Your task to perform on an android device: turn on priority inbox in the gmail app Image 0: 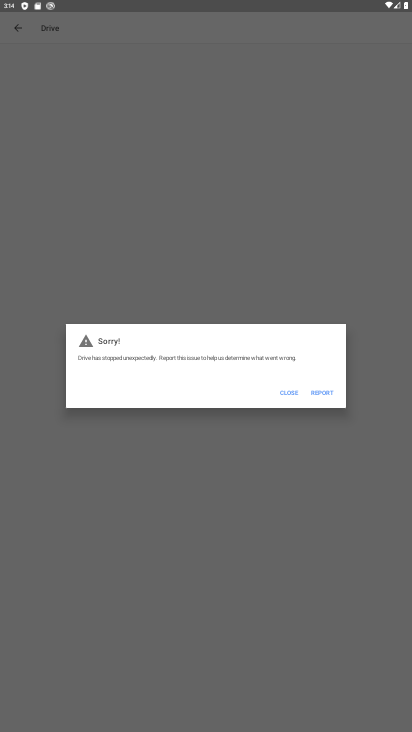
Step 0: press home button
Your task to perform on an android device: turn on priority inbox in the gmail app Image 1: 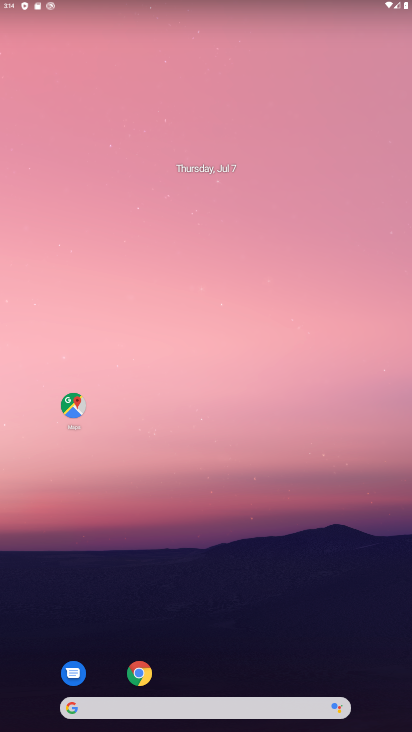
Step 1: drag from (293, 584) to (292, 51)
Your task to perform on an android device: turn on priority inbox in the gmail app Image 2: 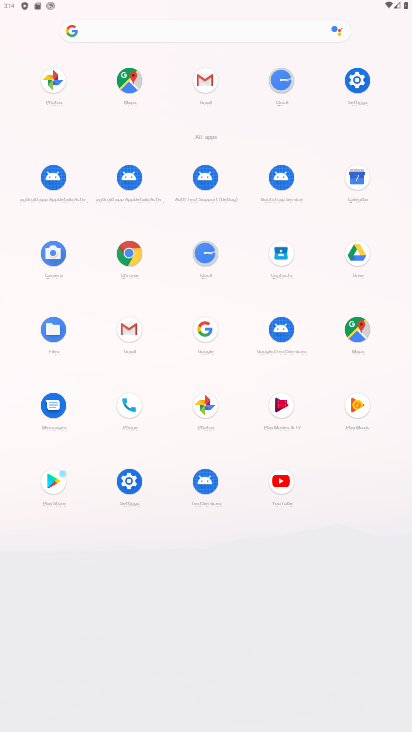
Step 2: click (191, 80)
Your task to perform on an android device: turn on priority inbox in the gmail app Image 3: 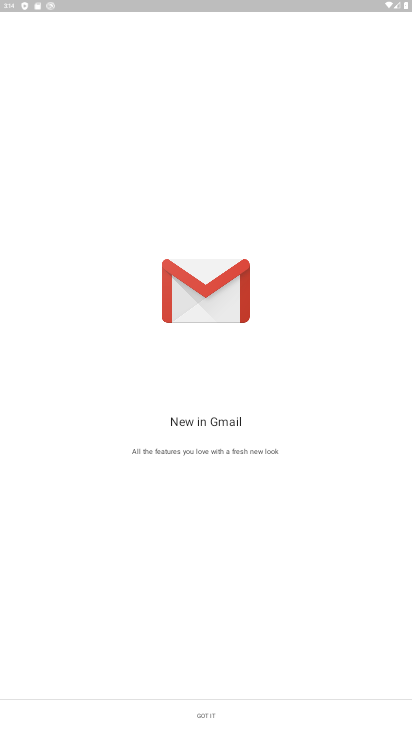
Step 3: click (205, 719)
Your task to perform on an android device: turn on priority inbox in the gmail app Image 4: 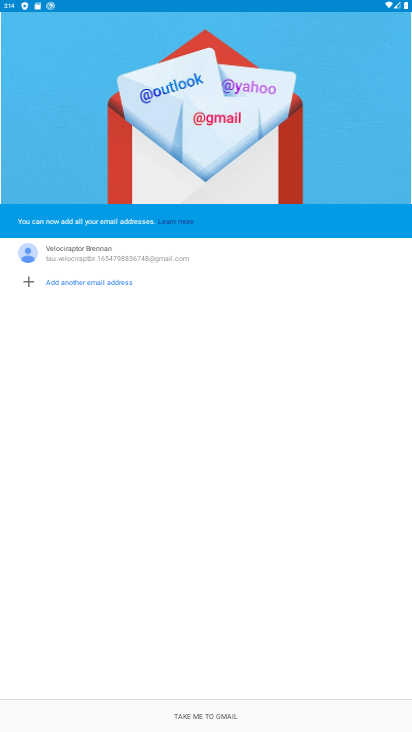
Step 4: click (111, 256)
Your task to perform on an android device: turn on priority inbox in the gmail app Image 5: 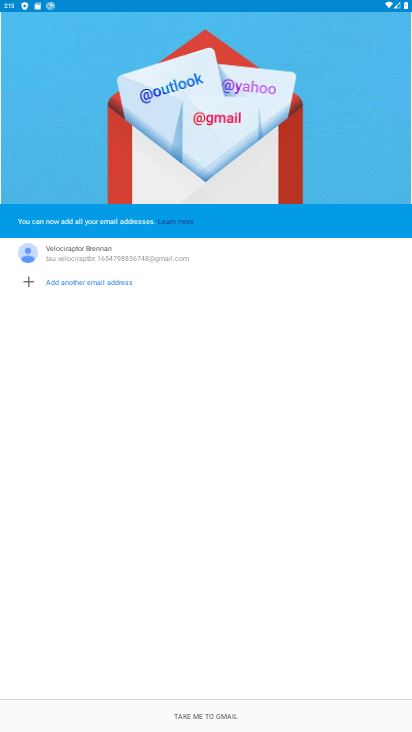
Step 5: click (218, 718)
Your task to perform on an android device: turn on priority inbox in the gmail app Image 6: 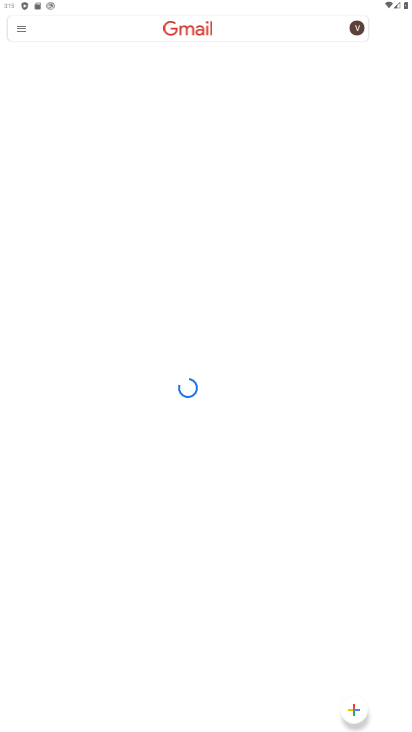
Step 6: drag from (51, 107) to (121, 2)
Your task to perform on an android device: turn on priority inbox in the gmail app Image 7: 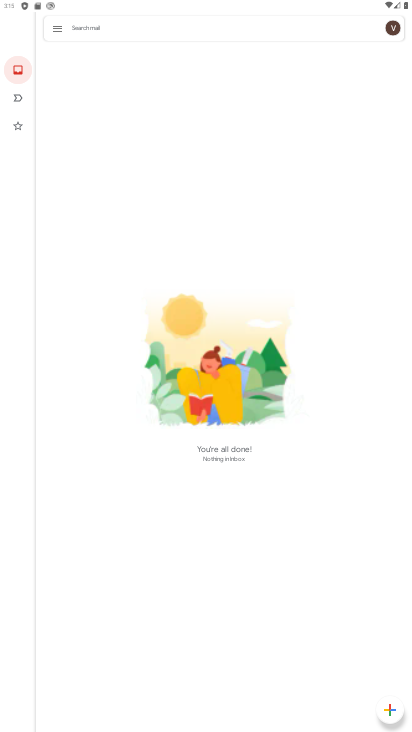
Step 7: click (52, 27)
Your task to perform on an android device: turn on priority inbox in the gmail app Image 8: 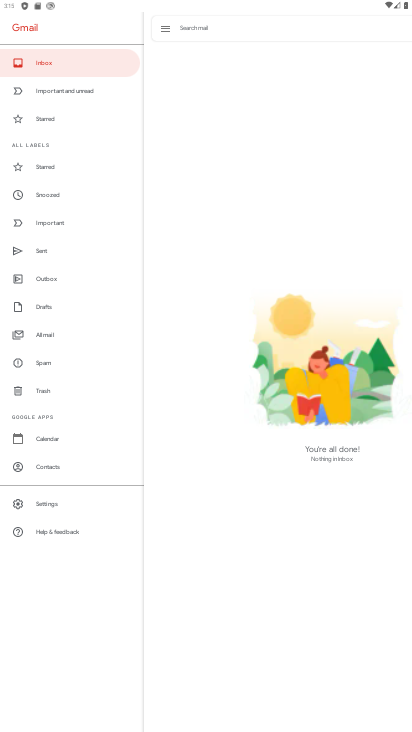
Step 8: click (47, 502)
Your task to perform on an android device: turn on priority inbox in the gmail app Image 9: 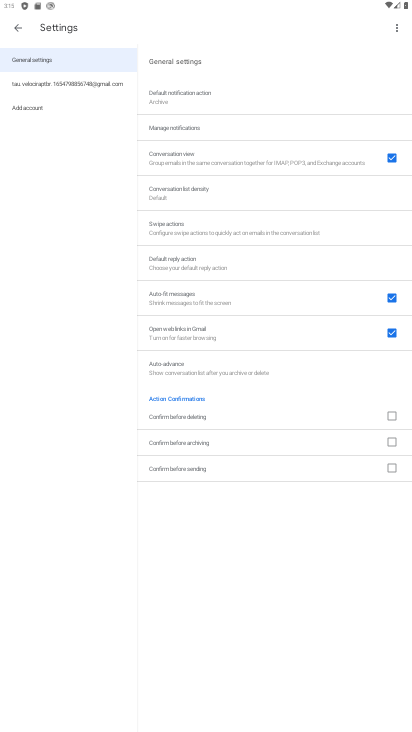
Step 9: click (65, 84)
Your task to perform on an android device: turn on priority inbox in the gmail app Image 10: 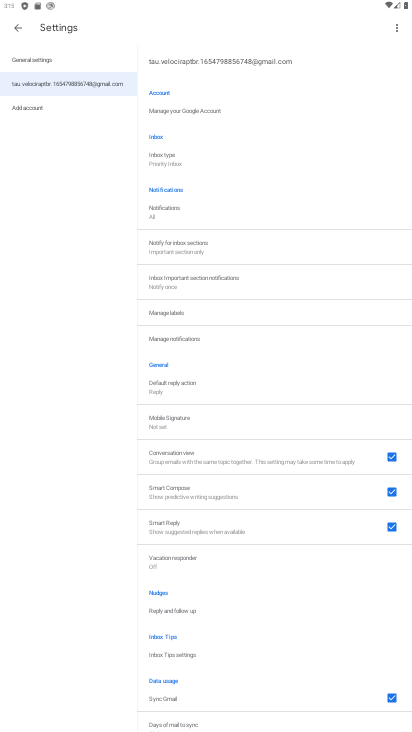
Step 10: click (151, 158)
Your task to perform on an android device: turn on priority inbox in the gmail app Image 11: 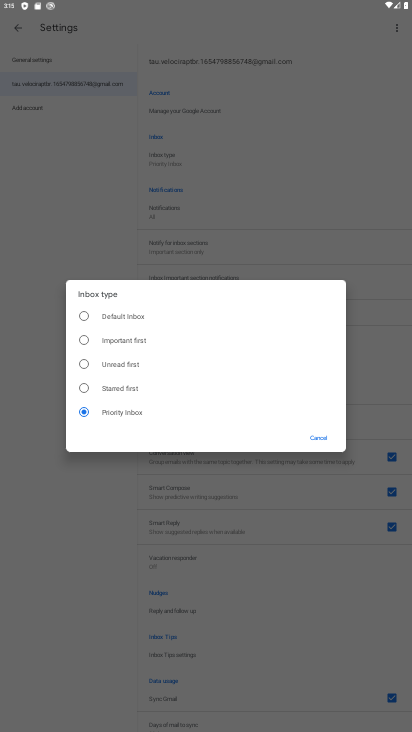
Step 11: task complete